Your task to perform on an android device: Open maps Image 0: 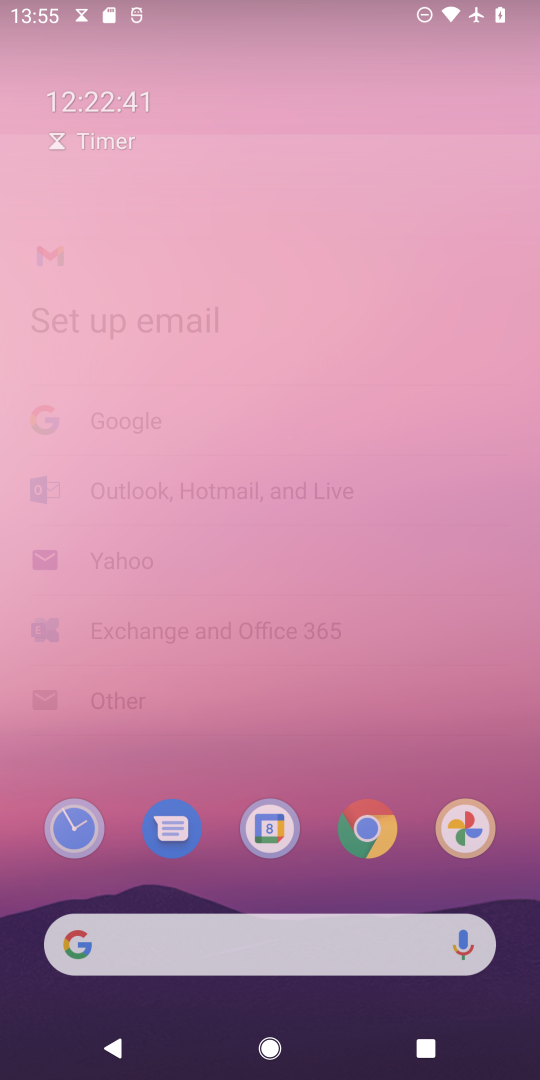
Step 0: press home button
Your task to perform on an android device: Open maps Image 1: 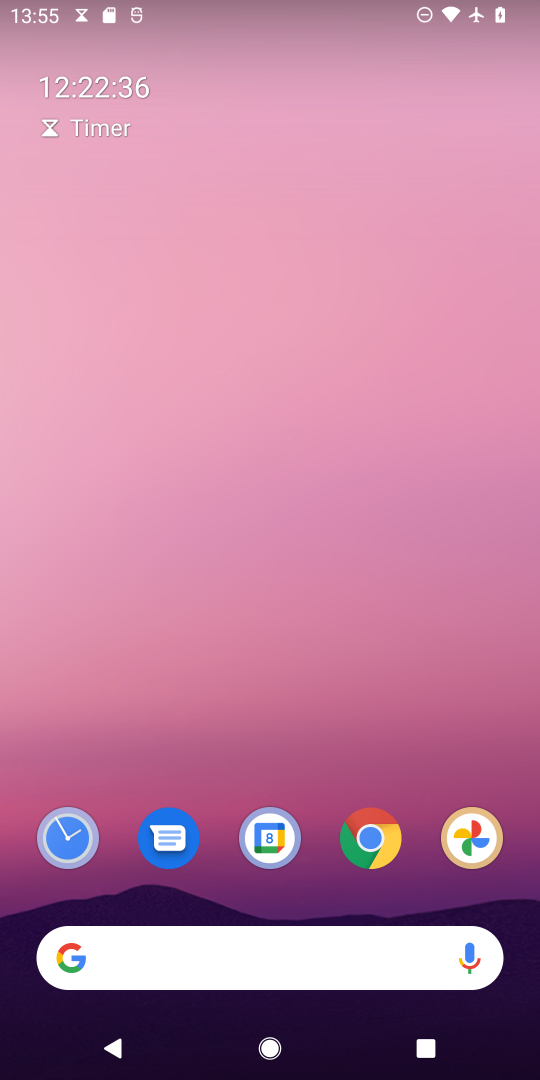
Step 1: drag from (428, 886) to (360, 297)
Your task to perform on an android device: Open maps Image 2: 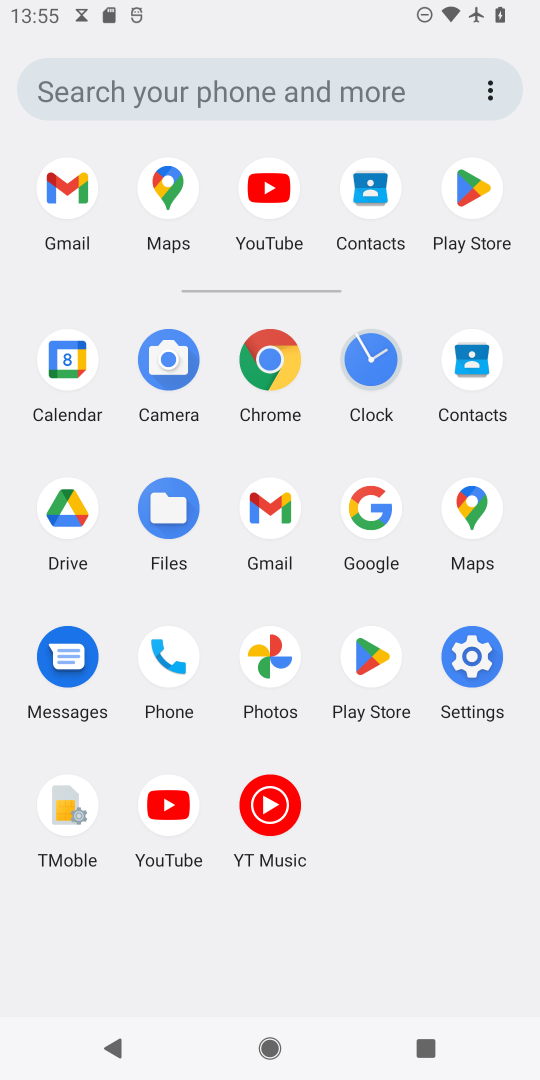
Step 2: click (163, 193)
Your task to perform on an android device: Open maps Image 3: 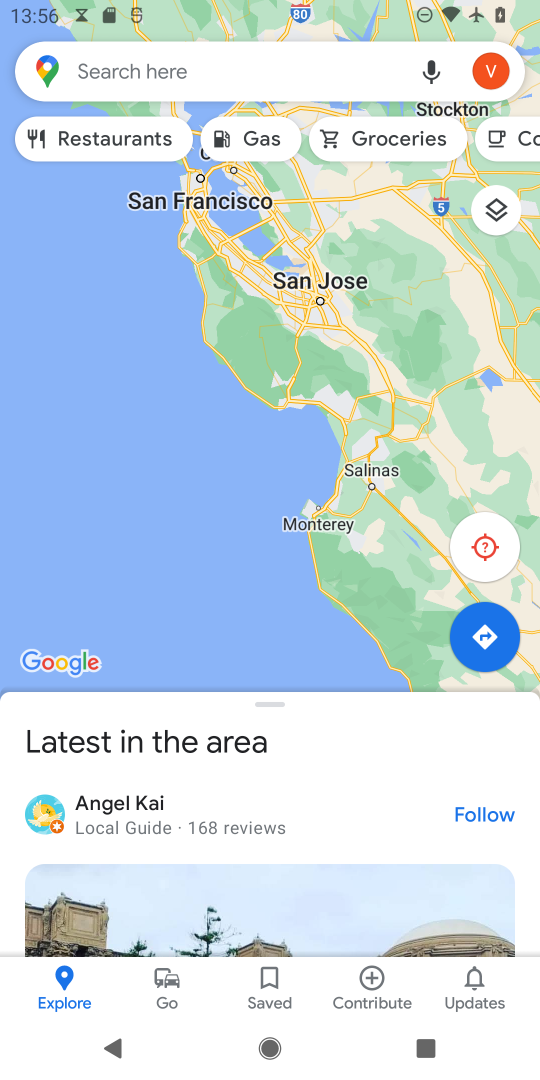
Step 3: task complete